Your task to perform on an android device: Set the phone to "Do not disturb". Image 0: 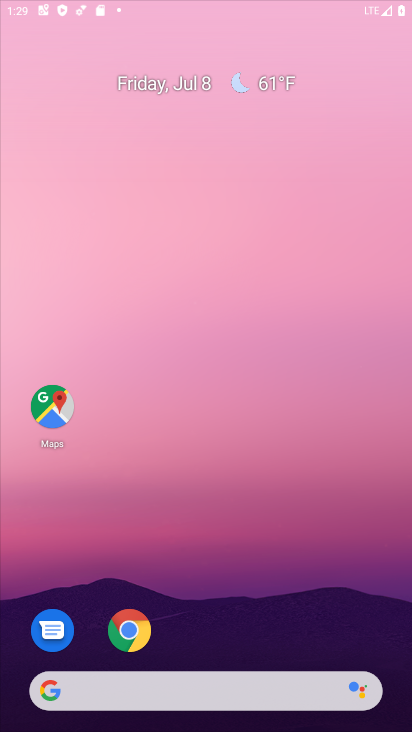
Step 0: drag from (232, 155) to (197, 53)
Your task to perform on an android device: Set the phone to "Do not disturb". Image 1: 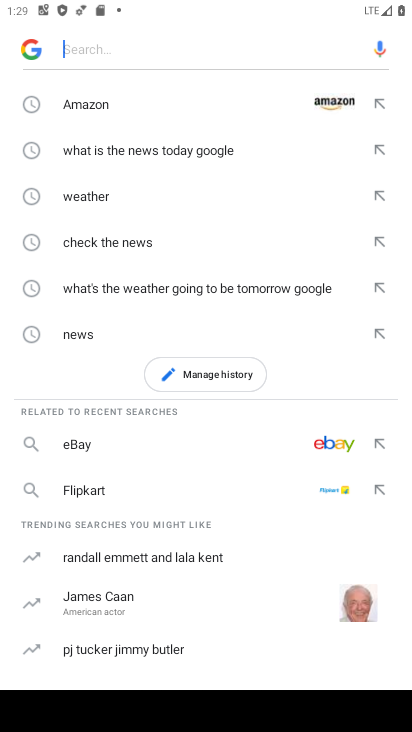
Step 1: press home button
Your task to perform on an android device: Set the phone to "Do not disturb". Image 2: 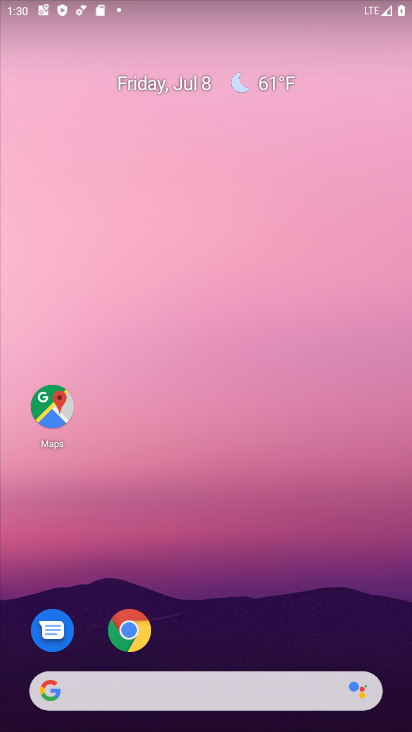
Step 2: drag from (177, 0) to (184, 288)
Your task to perform on an android device: Set the phone to "Do not disturb". Image 3: 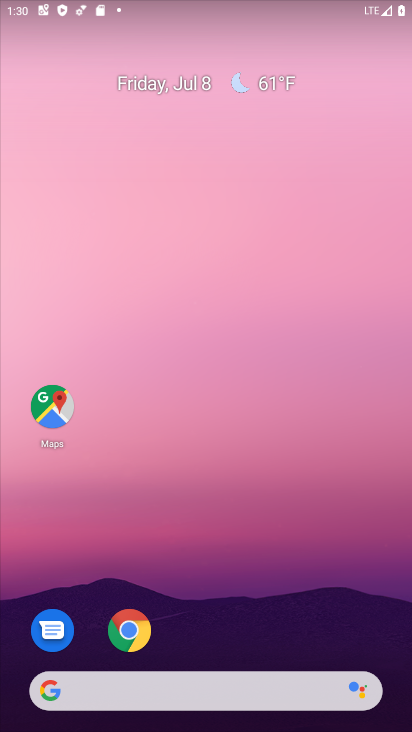
Step 3: drag from (162, 2) to (175, 580)
Your task to perform on an android device: Set the phone to "Do not disturb". Image 4: 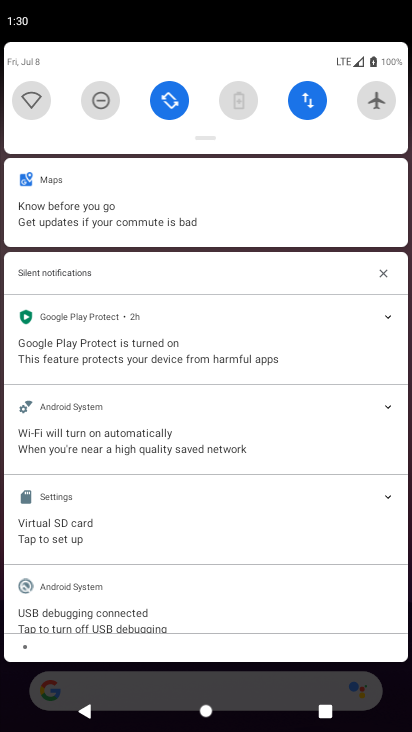
Step 4: click (102, 92)
Your task to perform on an android device: Set the phone to "Do not disturb". Image 5: 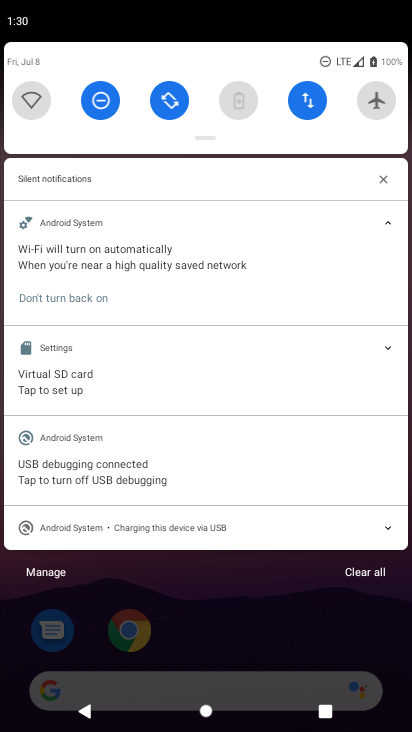
Step 5: task complete